Your task to perform on an android device: Open wifi settings Image 0: 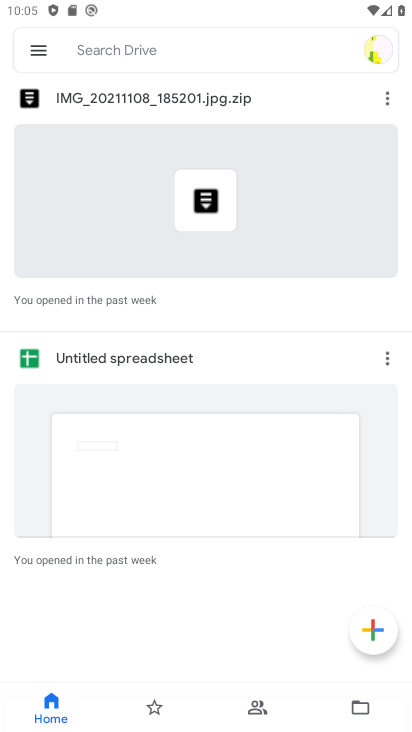
Step 0: press back button
Your task to perform on an android device: Open wifi settings Image 1: 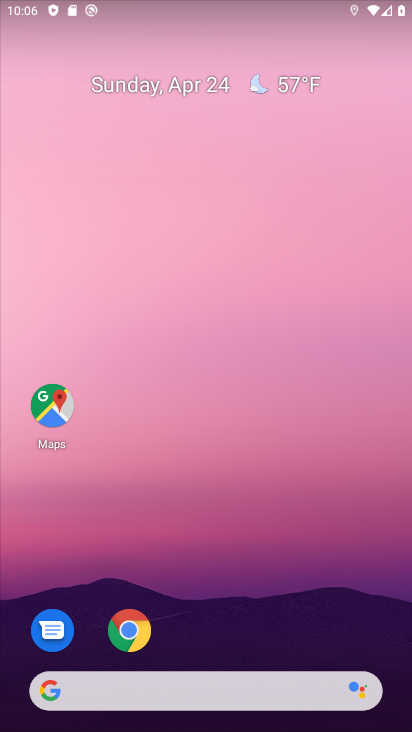
Step 1: drag from (250, 577) to (245, 105)
Your task to perform on an android device: Open wifi settings Image 2: 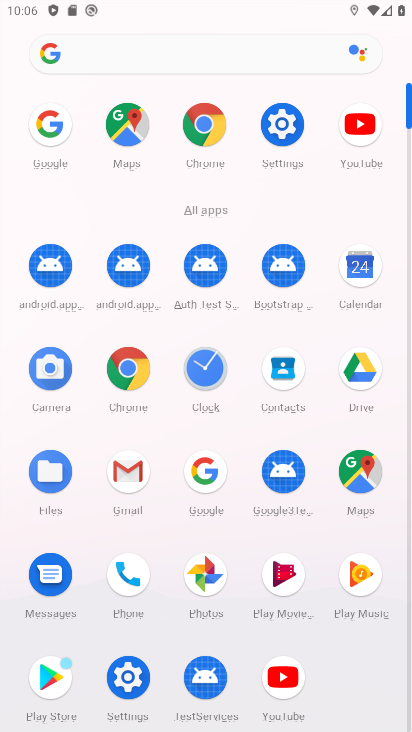
Step 2: click (282, 125)
Your task to perform on an android device: Open wifi settings Image 3: 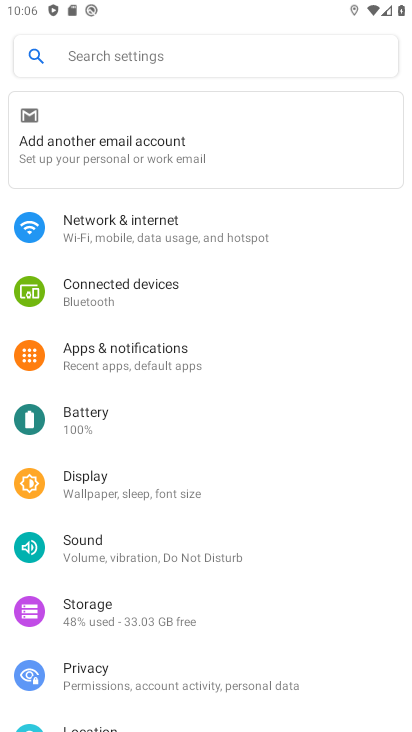
Step 3: click (178, 228)
Your task to perform on an android device: Open wifi settings Image 4: 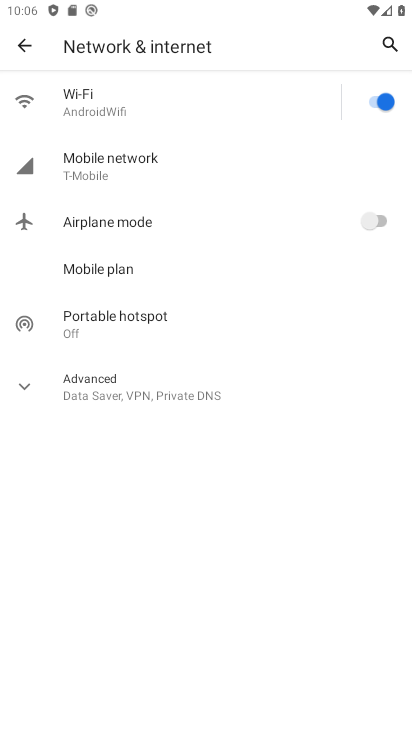
Step 4: click (111, 112)
Your task to perform on an android device: Open wifi settings Image 5: 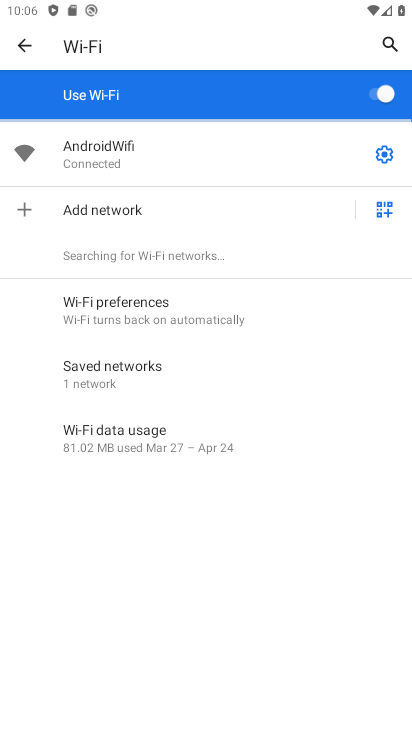
Step 5: task complete